Your task to perform on an android device: turn on javascript in the chrome app Image 0: 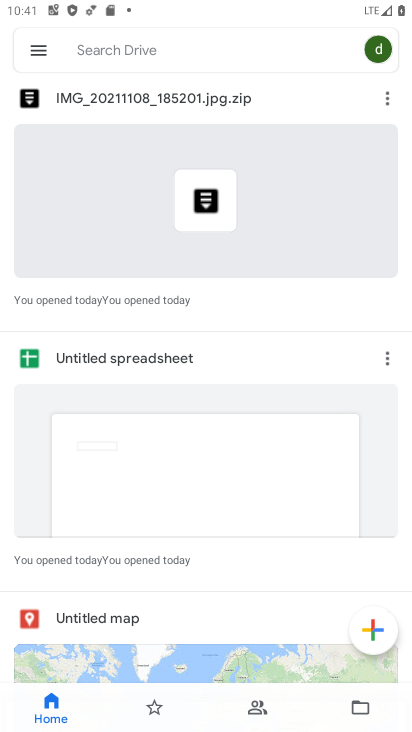
Step 0: press home button
Your task to perform on an android device: turn on javascript in the chrome app Image 1: 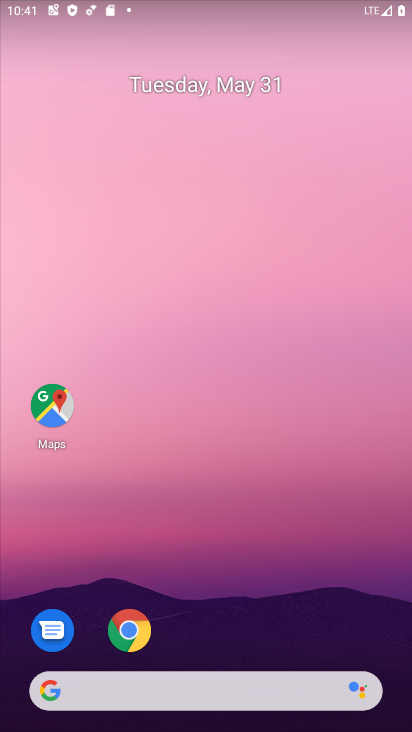
Step 1: click (119, 630)
Your task to perform on an android device: turn on javascript in the chrome app Image 2: 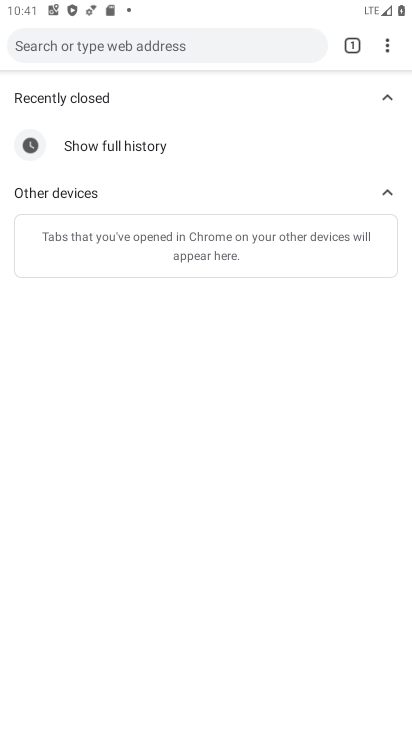
Step 2: press back button
Your task to perform on an android device: turn on javascript in the chrome app Image 3: 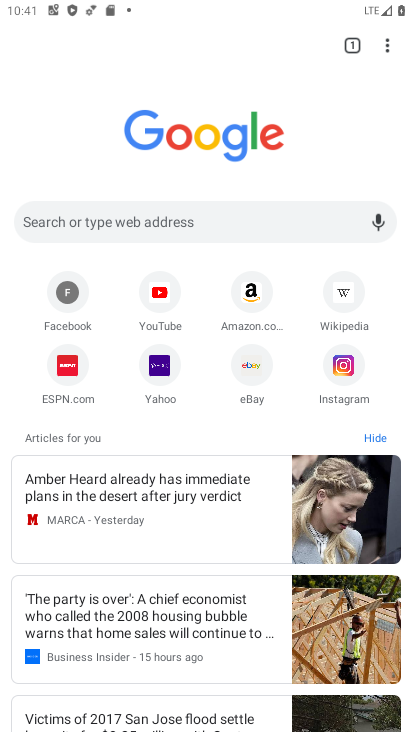
Step 3: click (387, 37)
Your task to perform on an android device: turn on javascript in the chrome app Image 4: 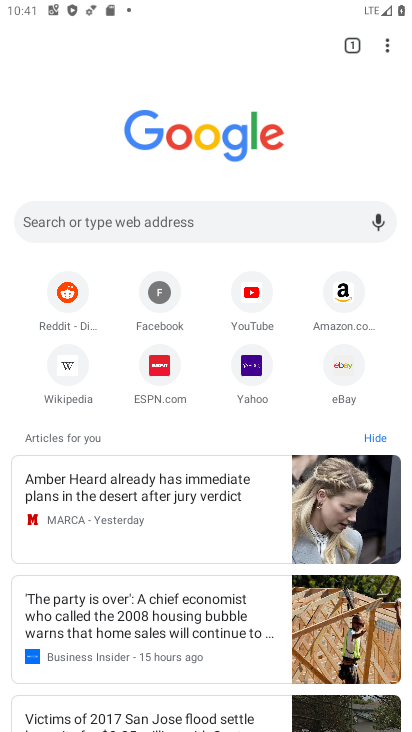
Step 4: drag from (385, 41) to (225, 379)
Your task to perform on an android device: turn on javascript in the chrome app Image 5: 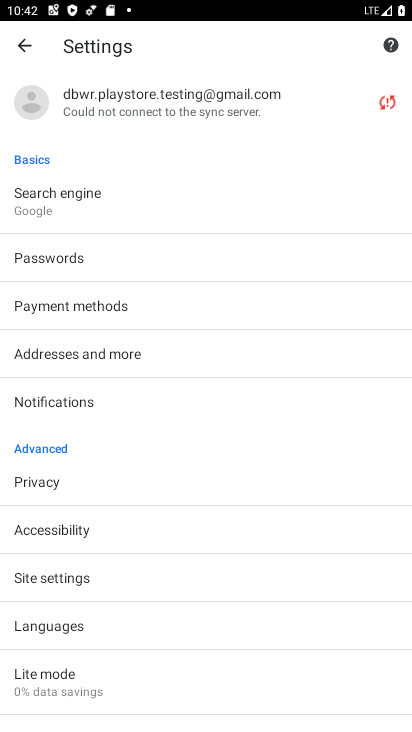
Step 5: click (76, 575)
Your task to perform on an android device: turn on javascript in the chrome app Image 6: 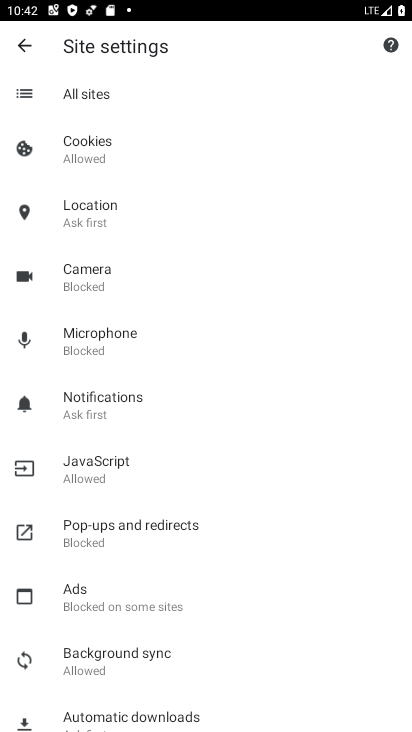
Step 6: click (107, 454)
Your task to perform on an android device: turn on javascript in the chrome app Image 7: 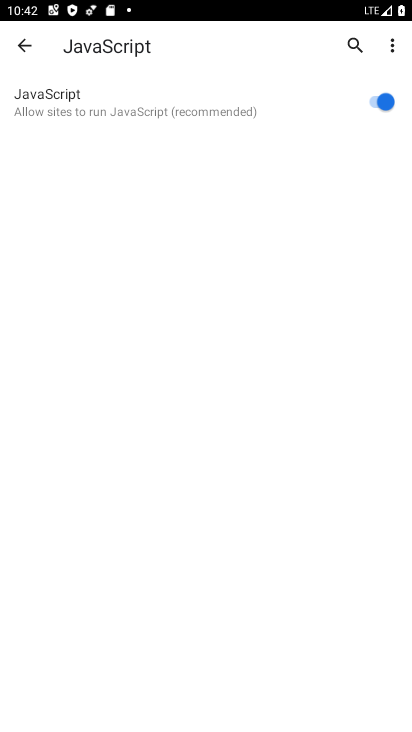
Step 7: task complete